Your task to perform on an android device: toggle airplane mode Image 0: 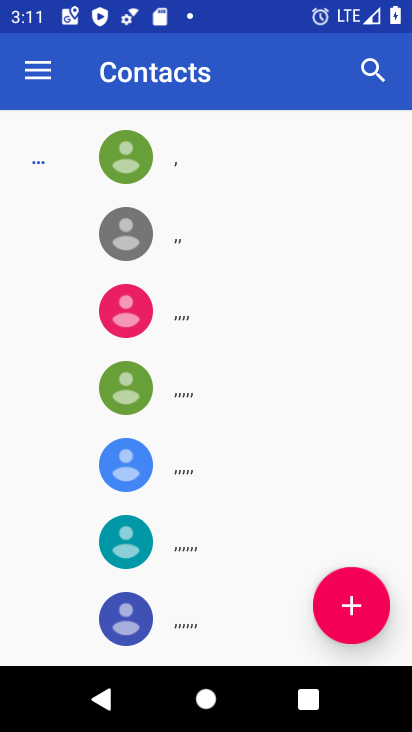
Step 0: press back button
Your task to perform on an android device: toggle airplane mode Image 1: 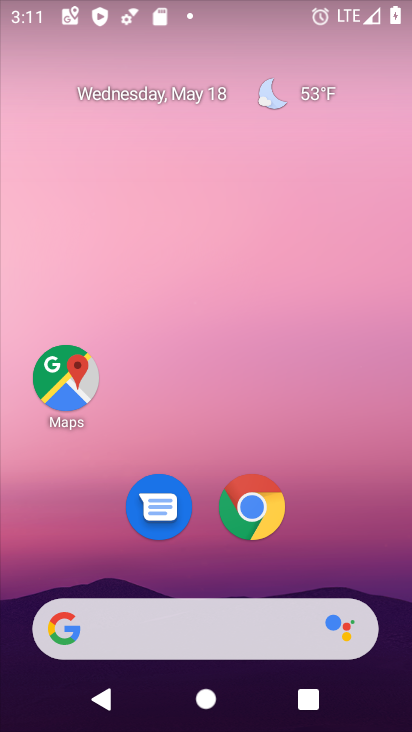
Step 1: drag from (321, 546) to (240, 46)
Your task to perform on an android device: toggle airplane mode Image 2: 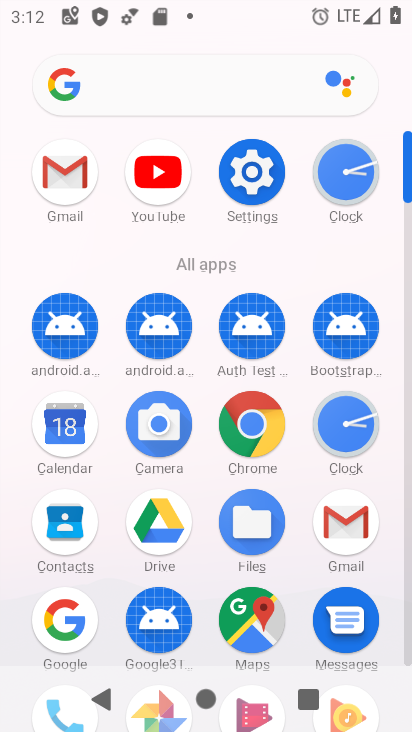
Step 2: click (252, 171)
Your task to perform on an android device: toggle airplane mode Image 3: 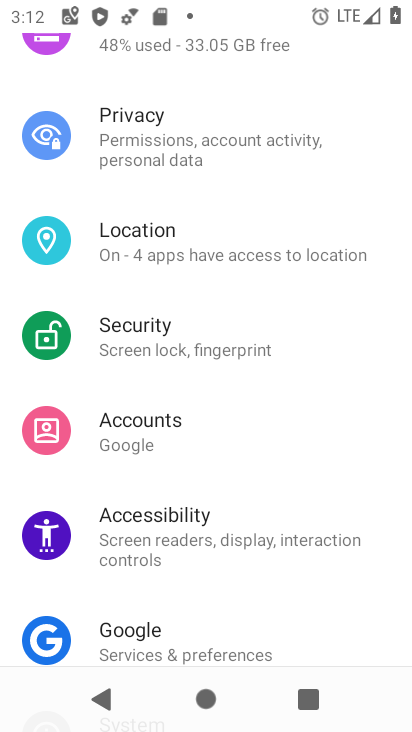
Step 3: drag from (228, 211) to (230, 320)
Your task to perform on an android device: toggle airplane mode Image 4: 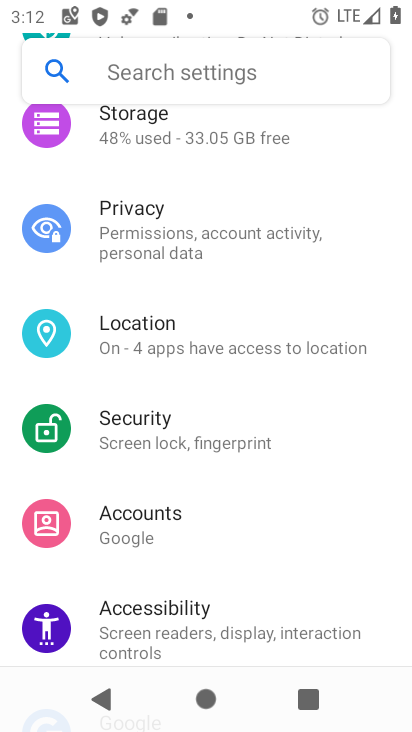
Step 4: drag from (211, 180) to (190, 343)
Your task to perform on an android device: toggle airplane mode Image 5: 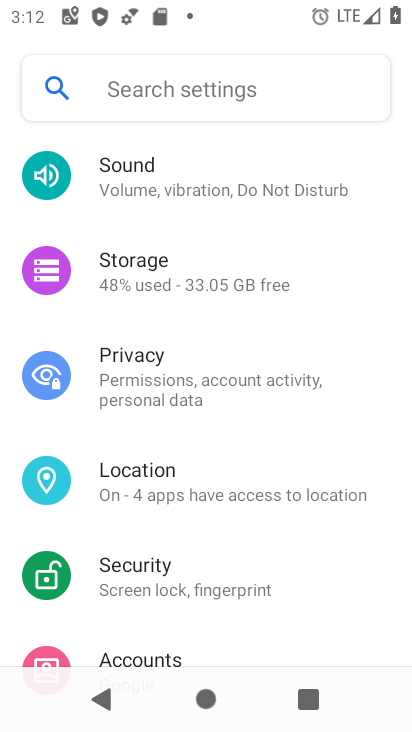
Step 5: drag from (235, 243) to (250, 339)
Your task to perform on an android device: toggle airplane mode Image 6: 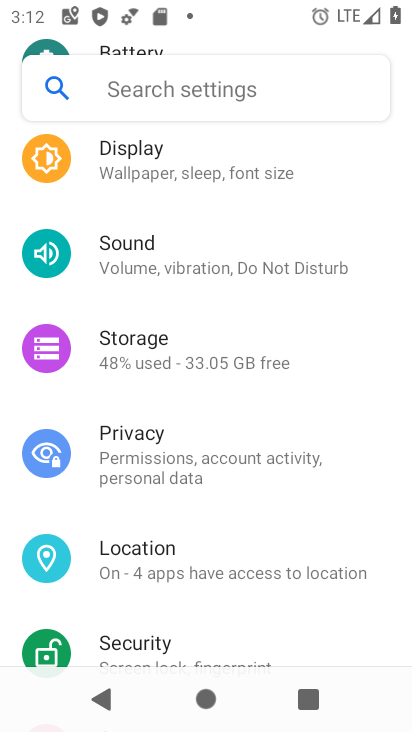
Step 6: drag from (200, 217) to (207, 352)
Your task to perform on an android device: toggle airplane mode Image 7: 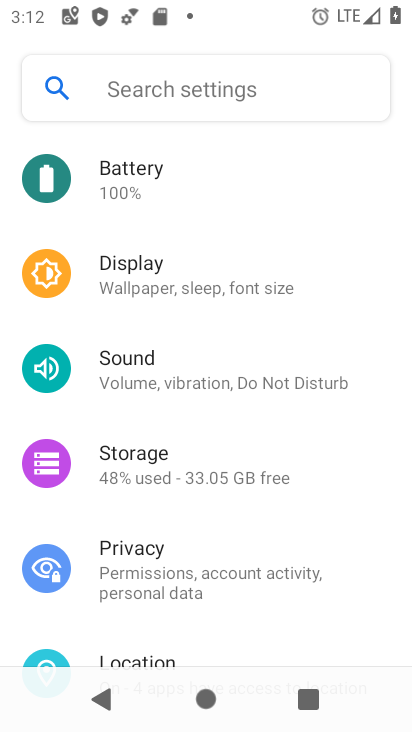
Step 7: drag from (171, 215) to (201, 345)
Your task to perform on an android device: toggle airplane mode Image 8: 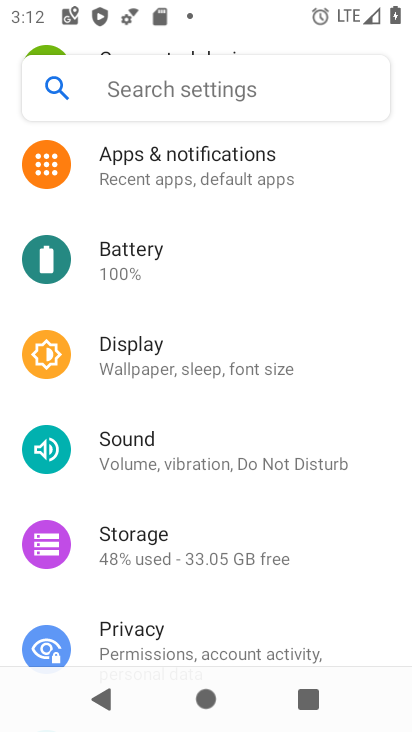
Step 8: drag from (223, 244) to (253, 379)
Your task to perform on an android device: toggle airplane mode Image 9: 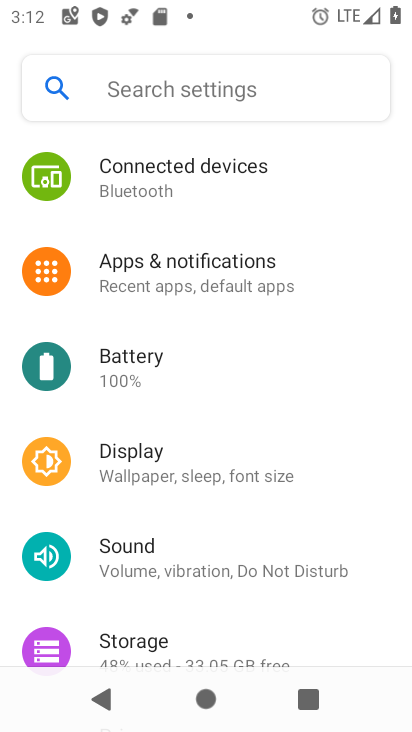
Step 9: drag from (198, 225) to (198, 339)
Your task to perform on an android device: toggle airplane mode Image 10: 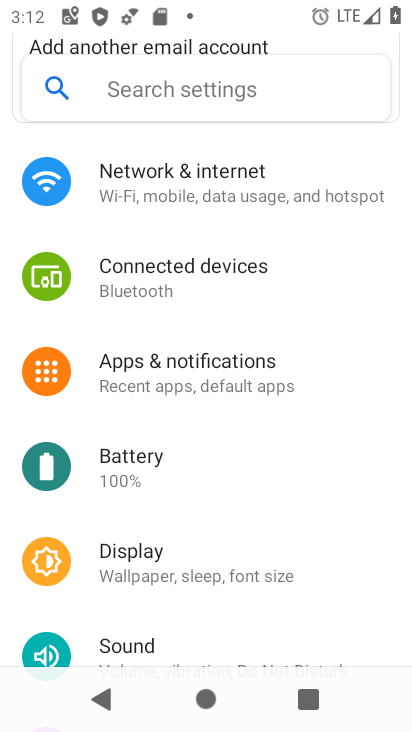
Step 10: drag from (196, 234) to (228, 333)
Your task to perform on an android device: toggle airplane mode Image 11: 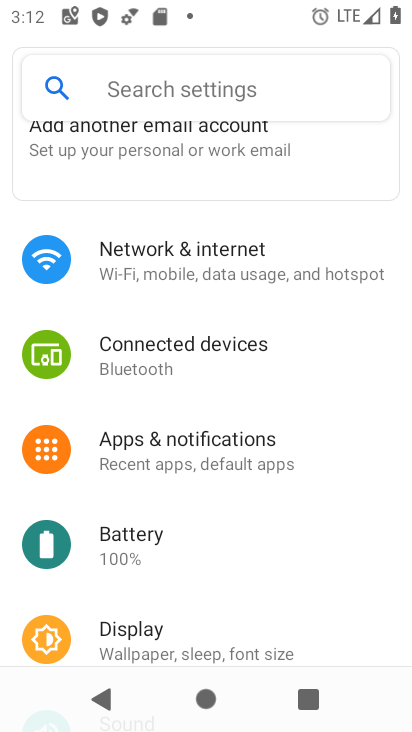
Step 11: click (188, 243)
Your task to perform on an android device: toggle airplane mode Image 12: 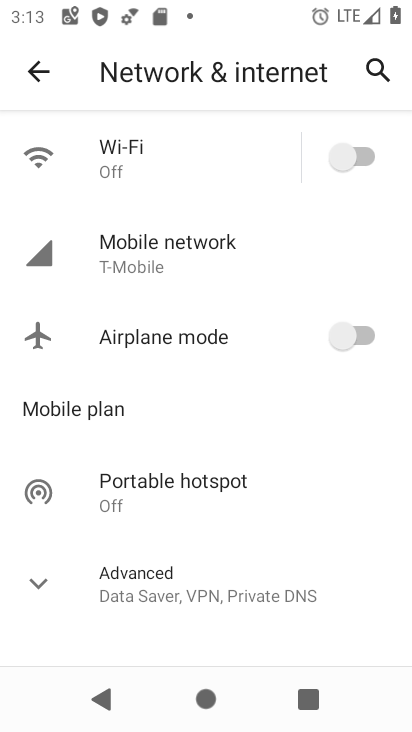
Step 12: click (342, 337)
Your task to perform on an android device: toggle airplane mode Image 13: 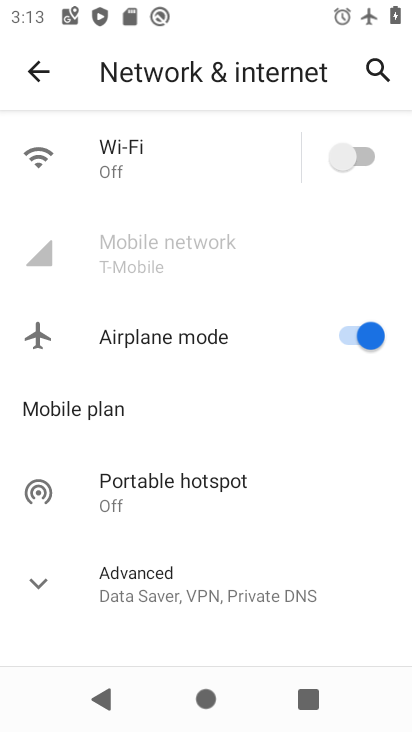
Step 13: task complete